Your task to perform on an android device: allow cookies in the chrome app Image 0: 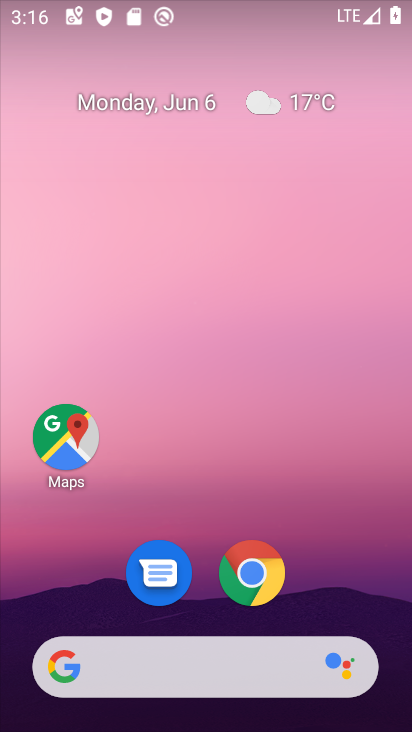
Step 0: drag from (384, 602) to (376, 178)
Your task to perform on an android device: allow cookies in the chrome app Image 1: 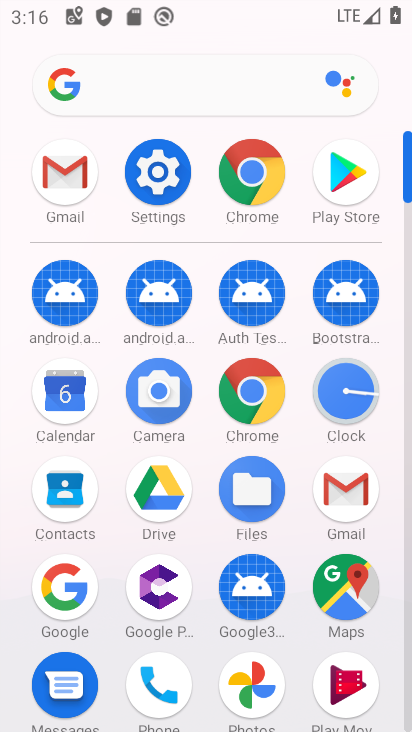
Step 1: click (267, 393)
Your task to perform on an android device: allow cookies in the chrome app Image 2: 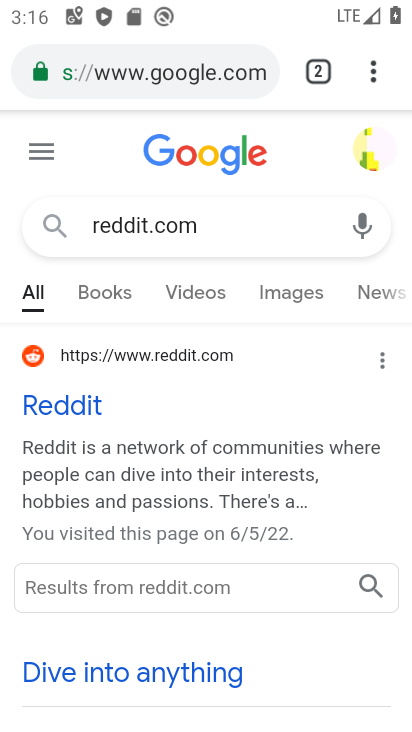
Step 2: click (371, 85)
Your task to perform on an android device: allow cookies in the chrome app Image 3: 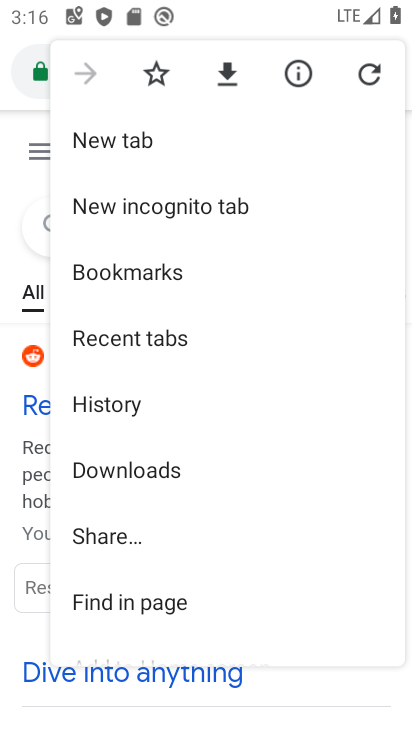
Step 3: drag from (322, 511) to (319, 419)
Your task to perform on an android device: allow cookies in the chrome app Image 4: 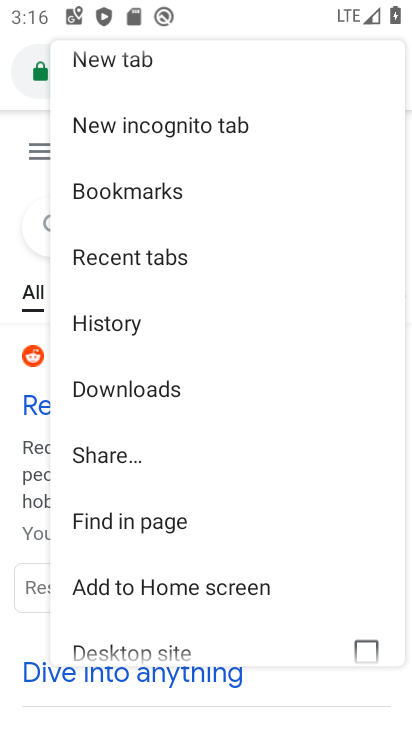
Step 4: drag from (310, 561) to (317, 382)
Your task to perform on an android device: allow cookies in the chrome app Image 5: 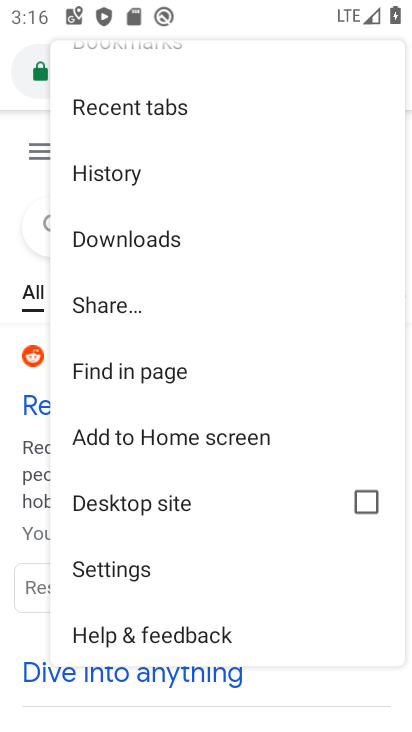
Step 5: click (147, 572)
Your task to perform on an android device: allow cookies in the chrome app Image 6: 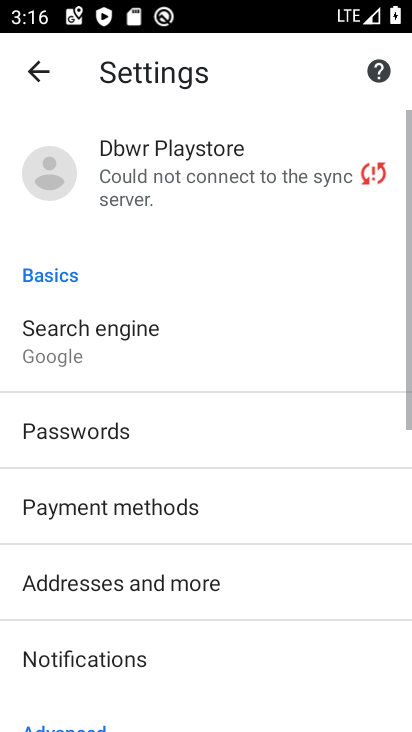
Step 6: drag from (293, 526) to (293, 406)
Your task to perform on an android device: allow cookies in the chrome app Image 7: 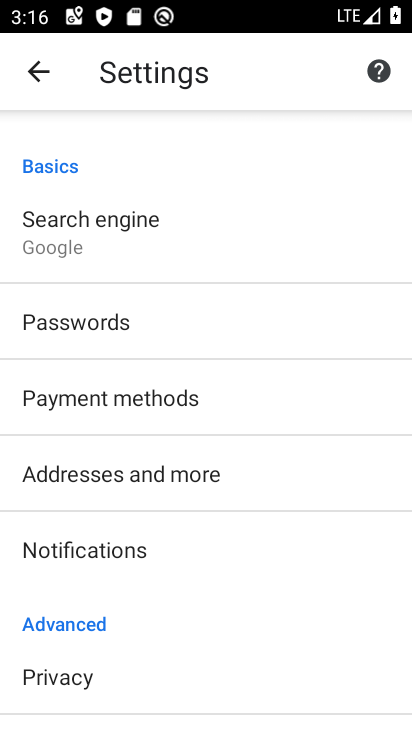
Step 7: drag from (302, 535) to (310, 432)
Your task to perform on an android device: allow cookies in the chrome app Image 8: 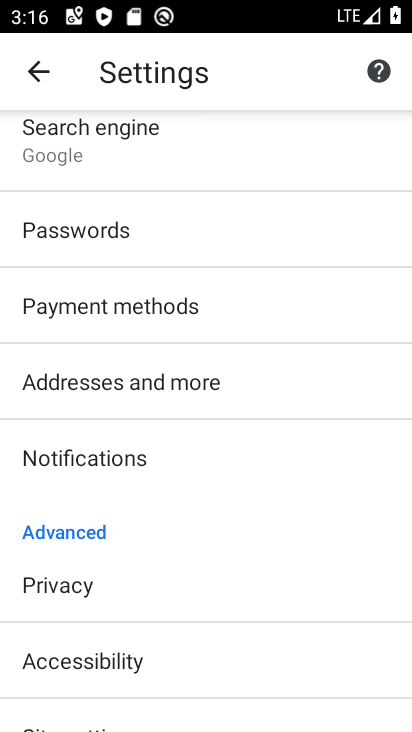
Step 8: drag from (310, 580) to (318, 504)
Your task to perform on an android device: allow cookies in the chrome app Image 9: 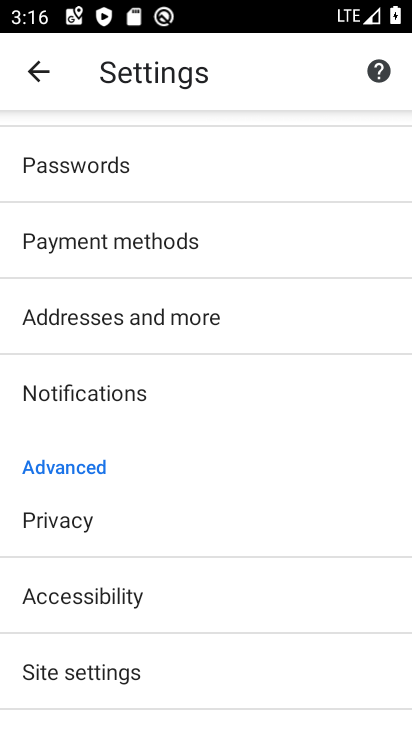
Step 9: drag from (315, 585) to (327, 508)
Your task to perform on an android device: allow cookies in the chrome app Image 10: 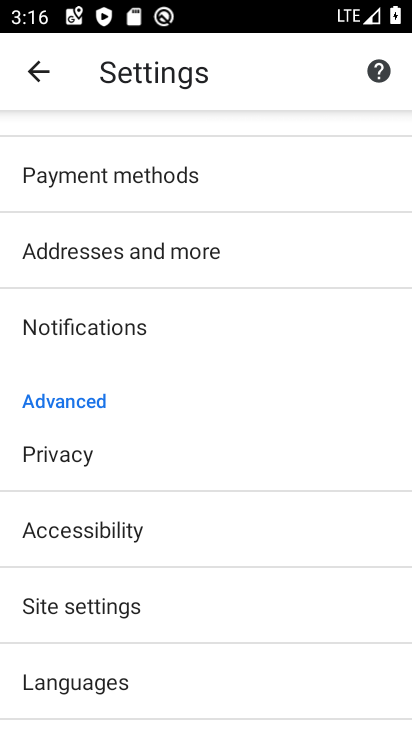
Step 10: drag from (325, 581) to (325, 520)
Your task to perform on an android device: allow cookies in the chrome app Image 11: 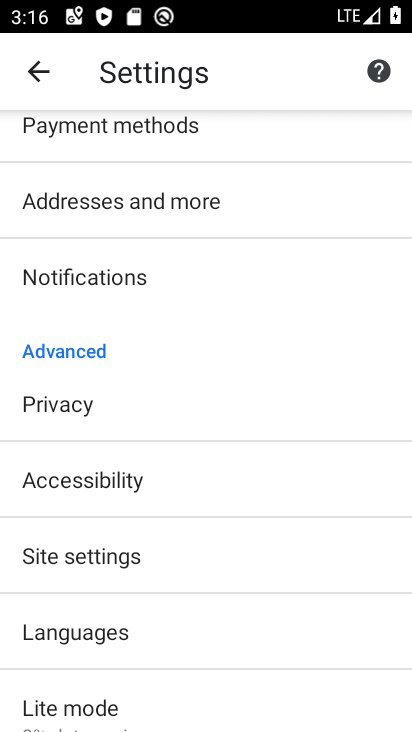
Step 11: drag from (313, 596) to (316, 467)
Your task to perform on an android device: allow cookies in the chrome app Image 12: 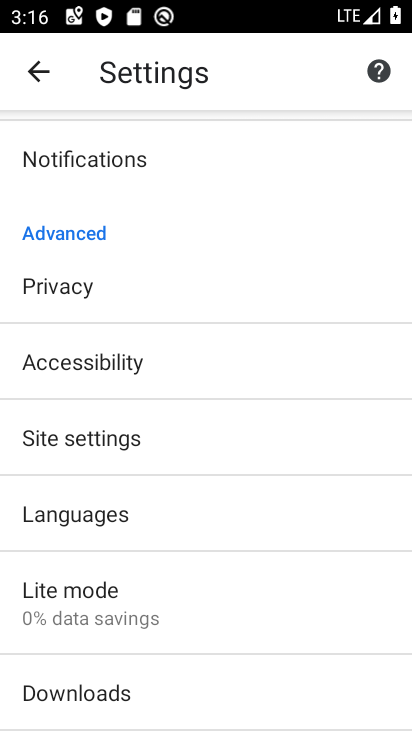
Step 12: drag from (307, 603) to (311, 498)
Your task to perform on an android device: allow cookies in the chrome app Image 13: 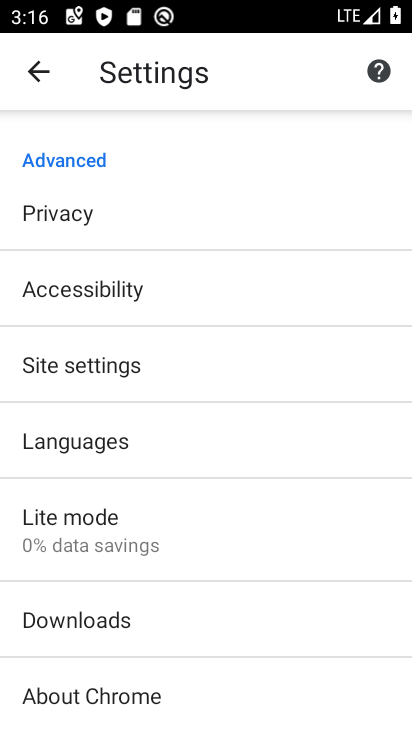
Step 13: click (207, 372)
Your task to perform on an android device: allow cookies in the chrome app Image 14: 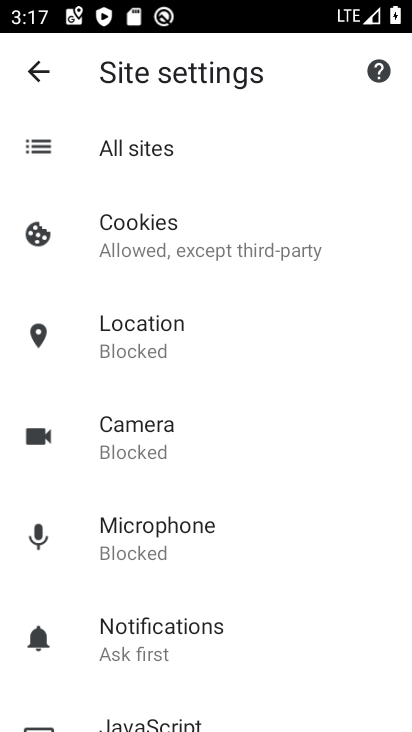
Step 14: click (227, 235)
Your task to perform on an android device: allow cookies in the chrome app Image 15: 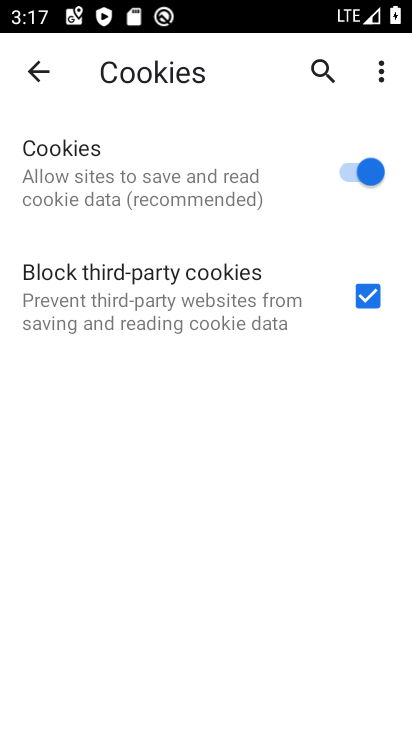
Step 15: task complete